Your task to perform on an android device: remove spam from my inbox in the gmail app Image 0: 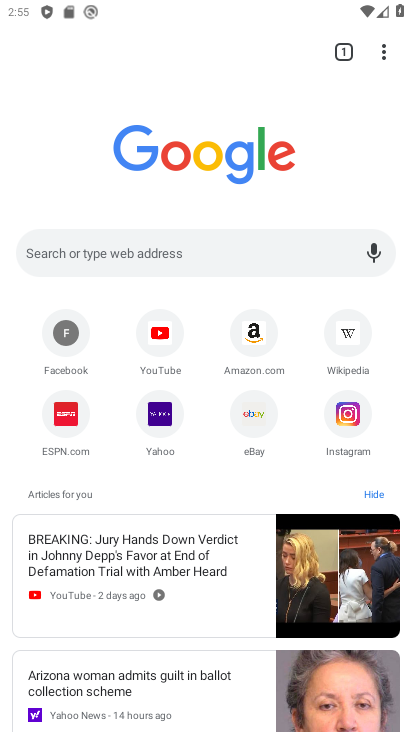
Step 0: press home button
Your task to perform on an android device: remove spam from my inbox in the gmail app Image 1: 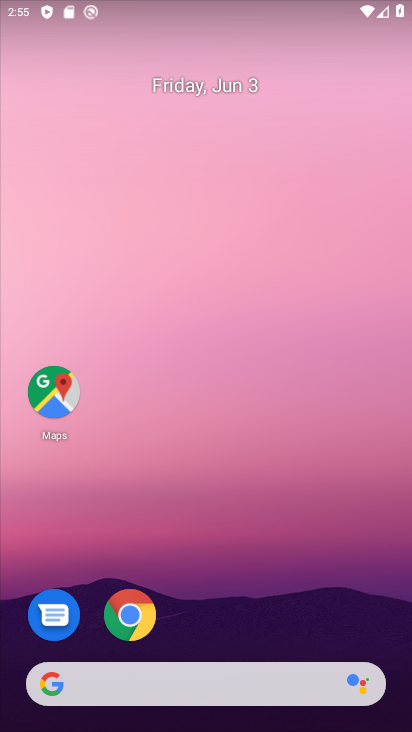
Step 1: drag from (223, 623) to (260, 213)
Your task to perform on an android device: remove spam from my inbox in the gmail app Image 2: 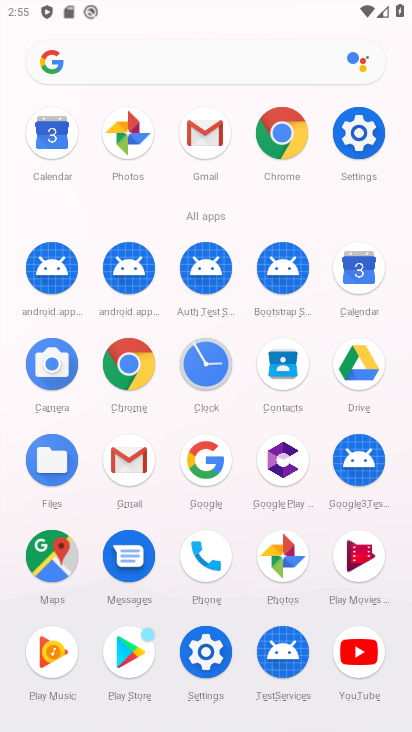
Step 2: click (195, 137)
Your task to perform on an android device: remove spam from my inbox in the gmail app Image 3: 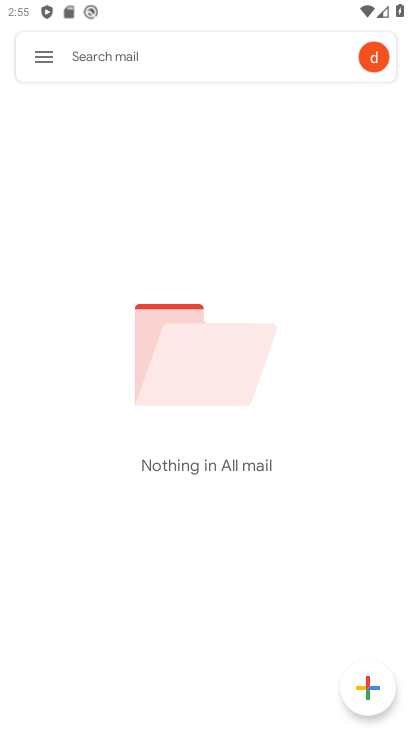
Step 3: click (44, 60)
Your task to perform on an android device: remove spam from my inbox in the gmail app Image 4: 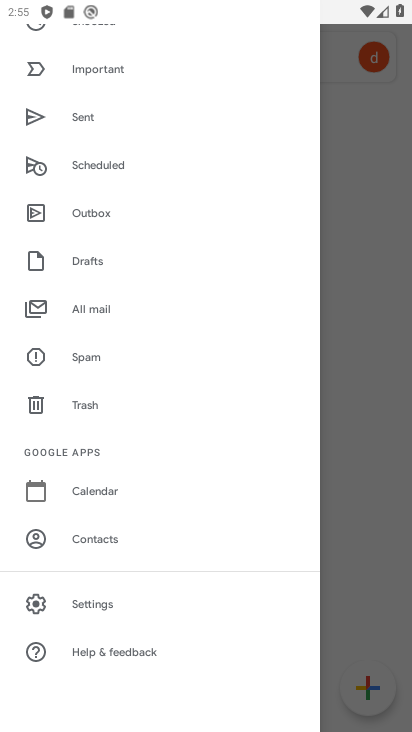
Step 4: click (97, 364)
Your task to perform on an android device: remove spam from my inbox in the gmail app Image 5: 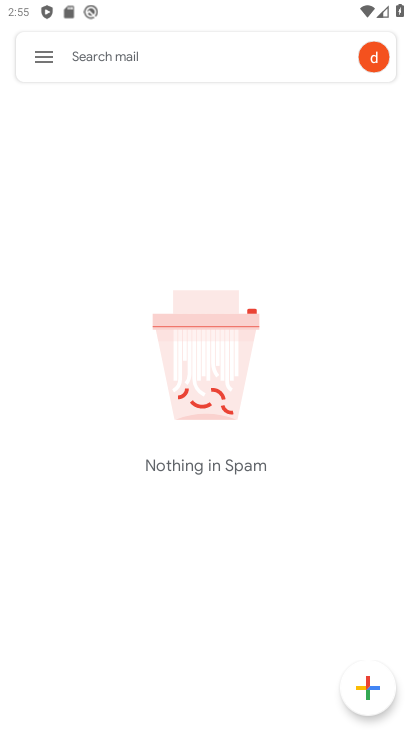
Step 5: task complete